Your task to perform on an android device: Is it going to rain this weekend? Image 0: 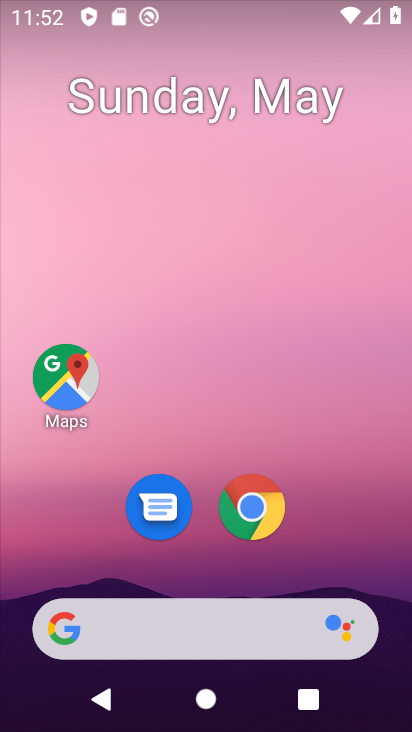
Step 0: click (230, 68)
Your task to perform on an android device: Is it going to rain this weekend? Image 1: 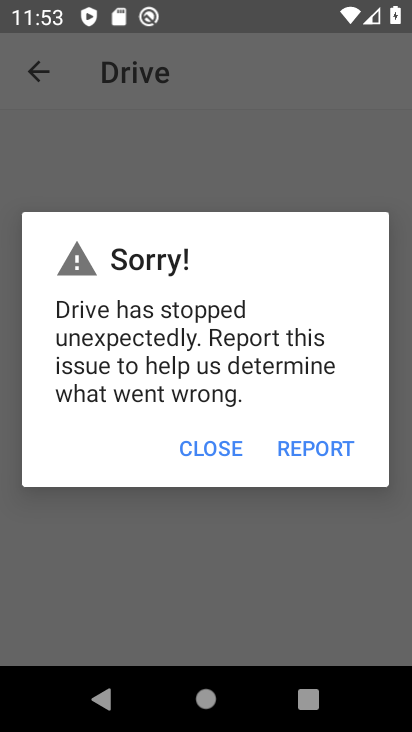
Step 1: press home button
Your task to perform on an android device: Is it going to rain this weekend? Image 2: 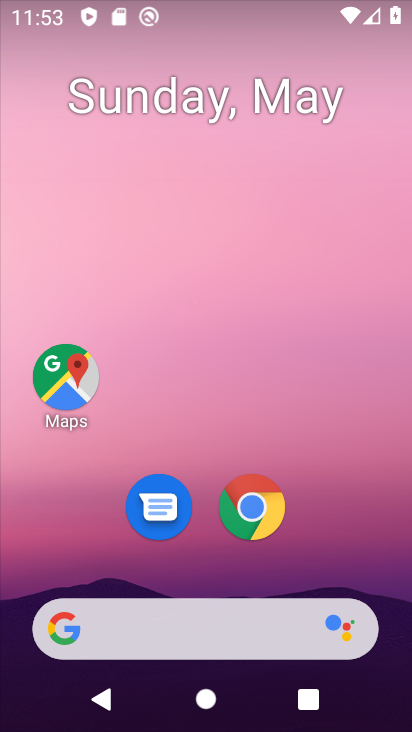
Step 2: drag from (235, 722) to (241, 62)
Your task to perform on an android device: Is it going to rain this weekend? Image 3: 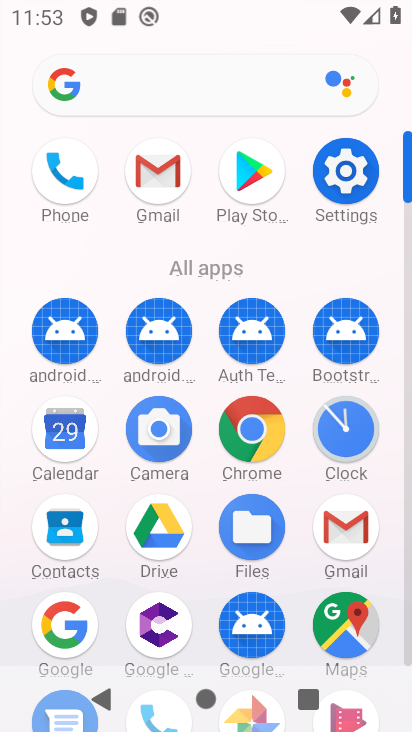
Step 3: click (73, 623)
Your task to perform on an android device: Is it going to rain this weekend? Image 4: 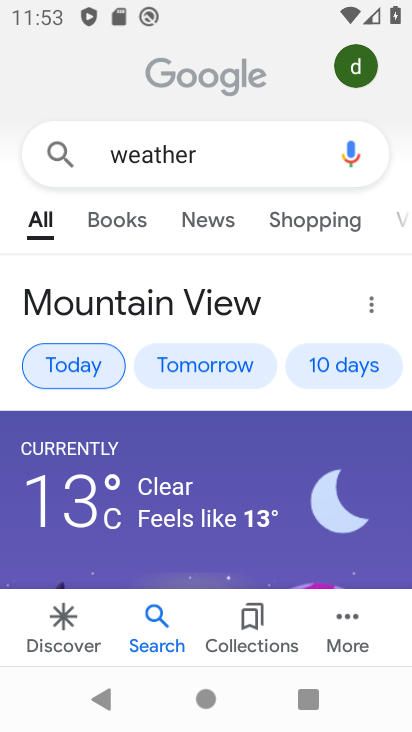
Step 4: click (335, 366)
Your task to perform on an android device: Is it going to rain this weekend? Image 5: 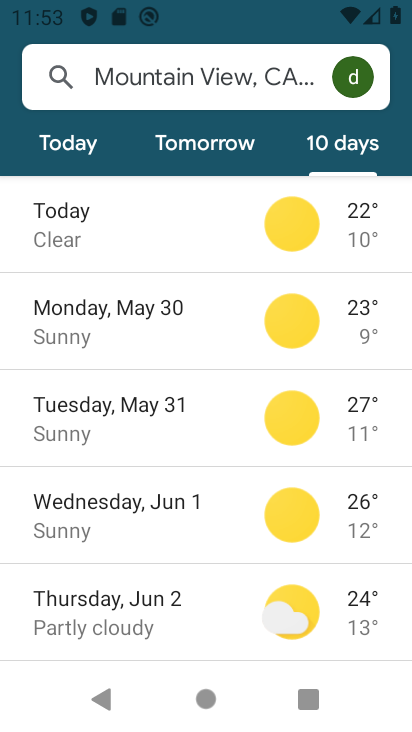
Step 5: drag from (125, 634) to (129, 293)
Your task to perform on an android device: Is it going to rain this weekend? Image 6: 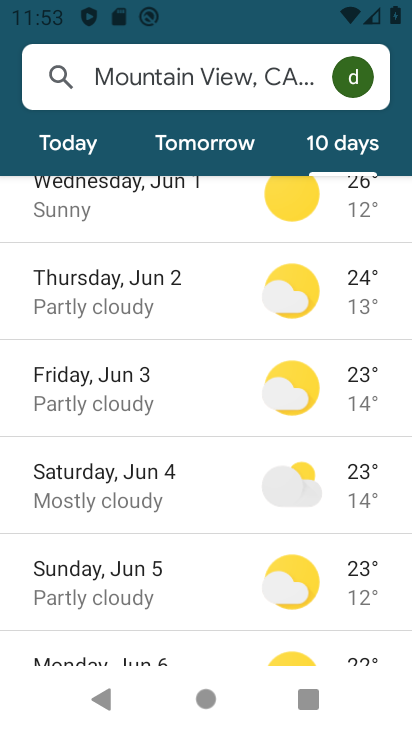
Step 6: drag from (154, 632) to (158, 303)
Your task to perform on an android device: Is it going to rain this weekend? Image 7: 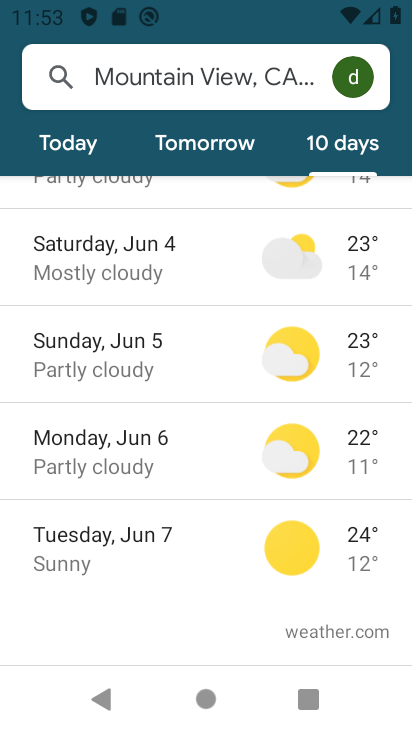
Step 7: click (163, 264)
Your task to perform on an android device: Is it going to rain this weekend? Image 8: 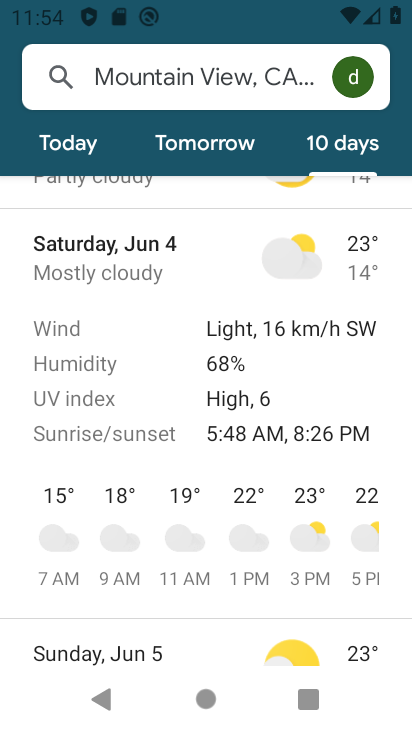
Step 8: task complete